Your task to perform on an android device: turn off notifications settings in the gmail app Image 0: 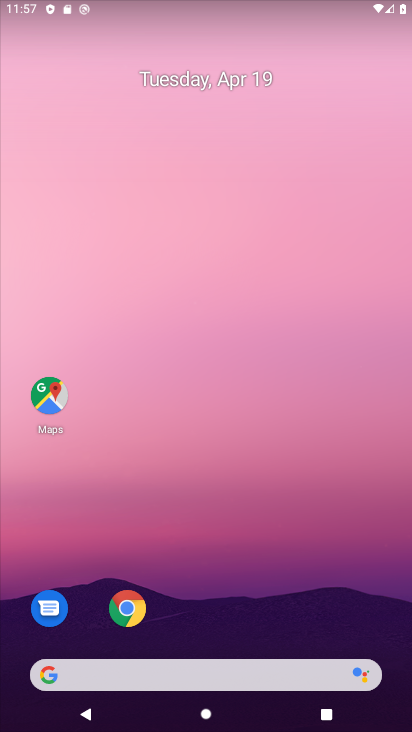
Step 0: drag from (227, 461) to (220, 54)
Your task to perform on an android device: turn off notifications settings in the gmail app Image 1: 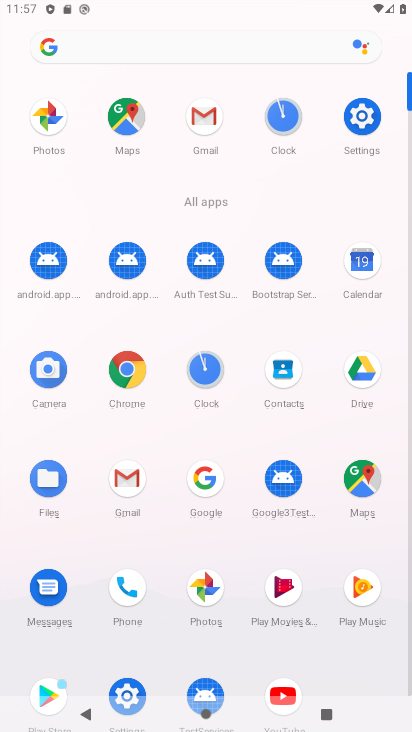
Step 1: click (199, 117)
Your task to perform on an android device: turn off notifications settings in the gmail app Image 2: 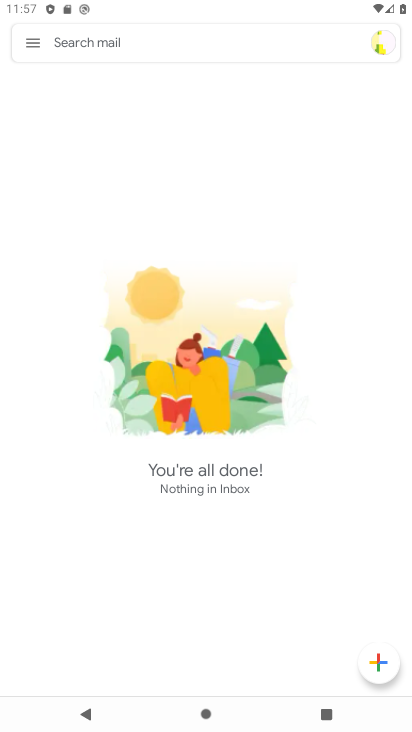
Step 2: click (35, 41)
Your task to perform on an android device: turn off notifications settings in the gmail app Image 3: 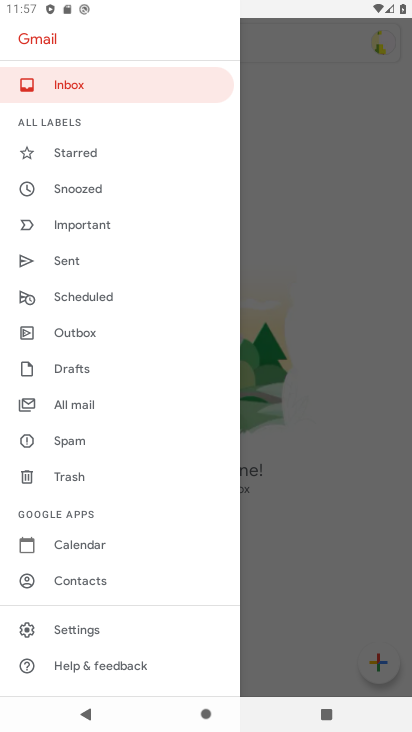
Step 3: click (98, 623)
Your task to perform on an android device: turn off notifications settings in the gmail app Image 4: 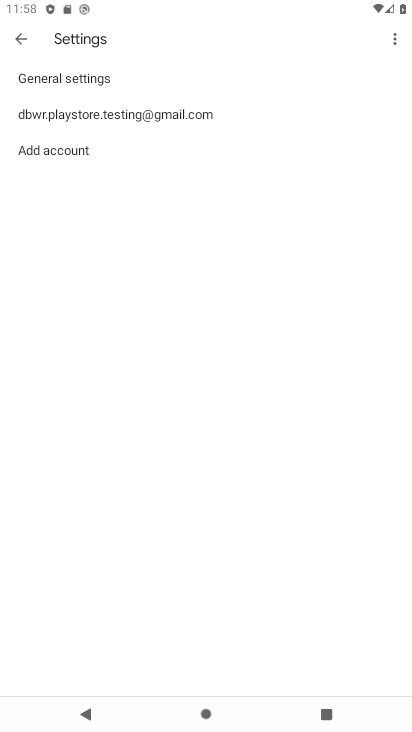
Step 4: click (84, 80)
Your task to perform on an android device: turn off notifications settings in the gmail app Image 5: 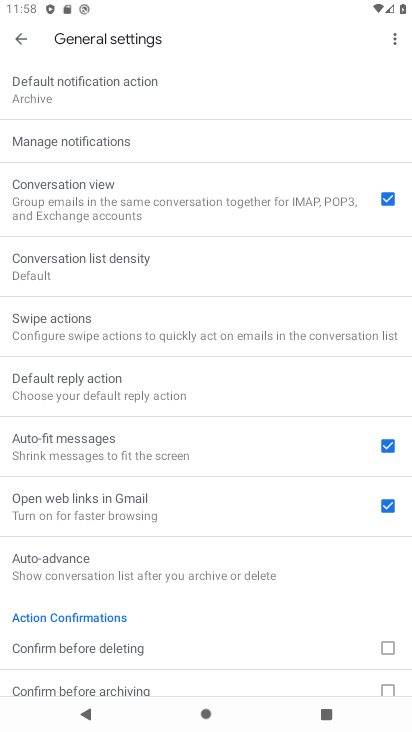
Step 5: click (104, 144)
Your task to perform on an android device: turn off notifications settings in the gmail app Image 6: 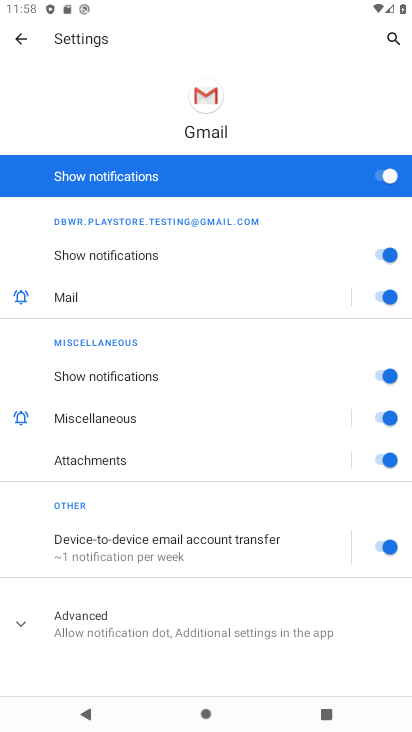
Step 6: click (376, 171)
Your task to perform on an android device: turn off notifications settings in the gmail app Image 7: 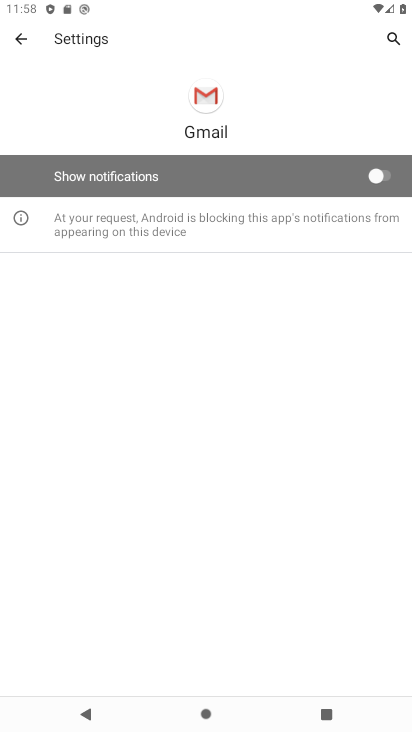
Step 7: task complete